Your task to perform on an android device: Go to Reddit.com Image 0: 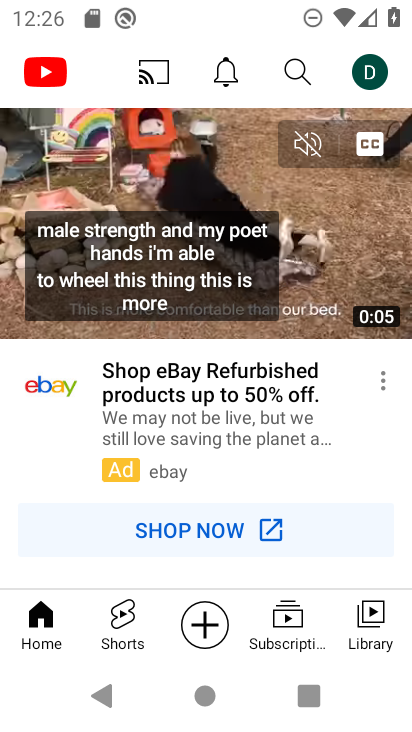
Step 0: press home button
Your task to perform on an android device: Go to Reddit.com Image 1: 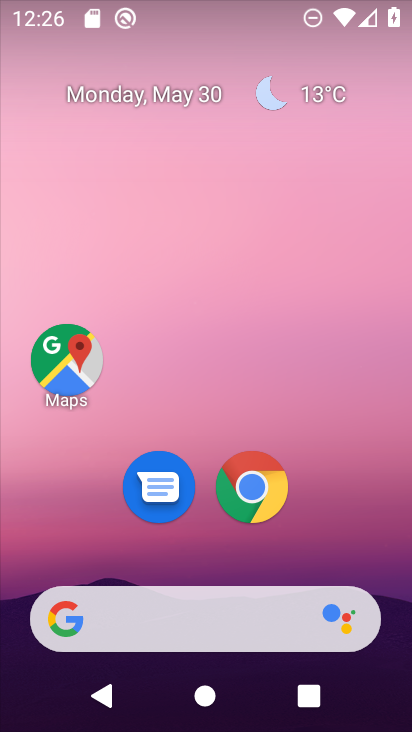
Step 1: click (250, 486)
Your task to perform on an android device: Go to Reddit.com Image 2: 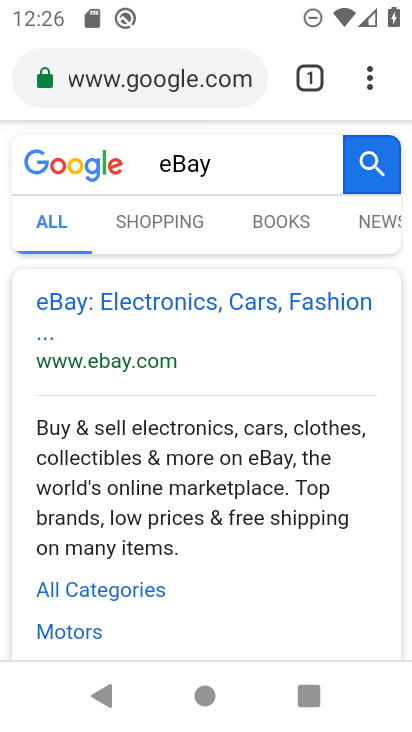
Step 2: click (248, 74)
Your task to perform on an android device: Go to Reddit.com Image 3: 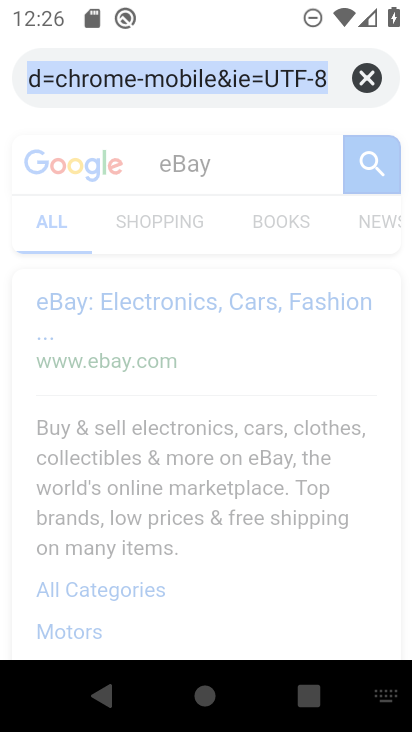
Step 3: click (375, 80)
Your task to perform on an android device: Go to Reddit.com Image 4: 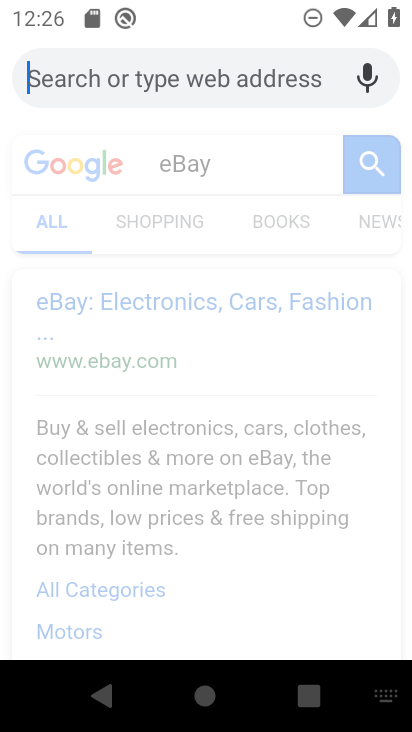
Step 4: type "Reddit.com"
Your task to perform on an android device: Go to Reddit.com Image 5: 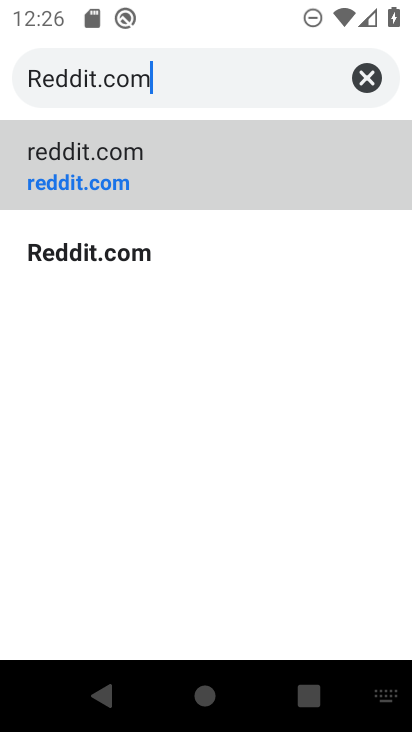
Step 5: click (125, 261)
Your task to perform on an android device: Go to Reddit.com Image 6: 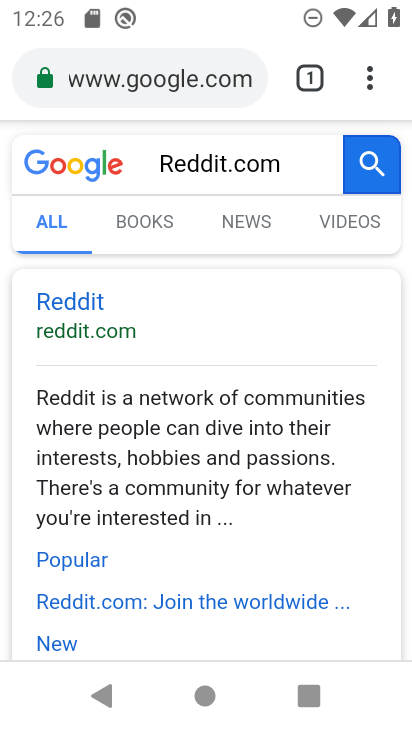
Step 6: task complete